Your task to perform on an android device: Go to ESPN.com Image 0: 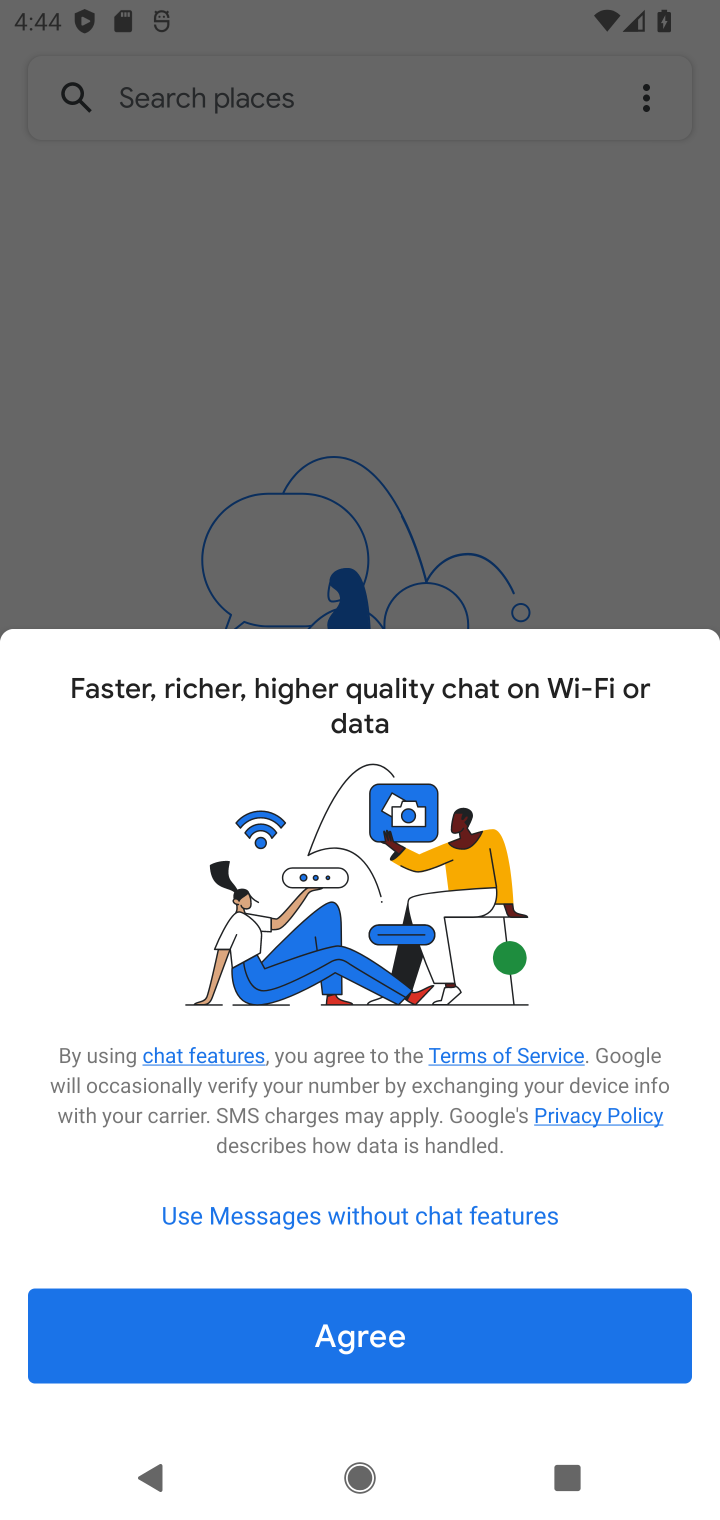
Step 0: press home button
Your task to perform on an android device: Go to ESPN.com Image 1: 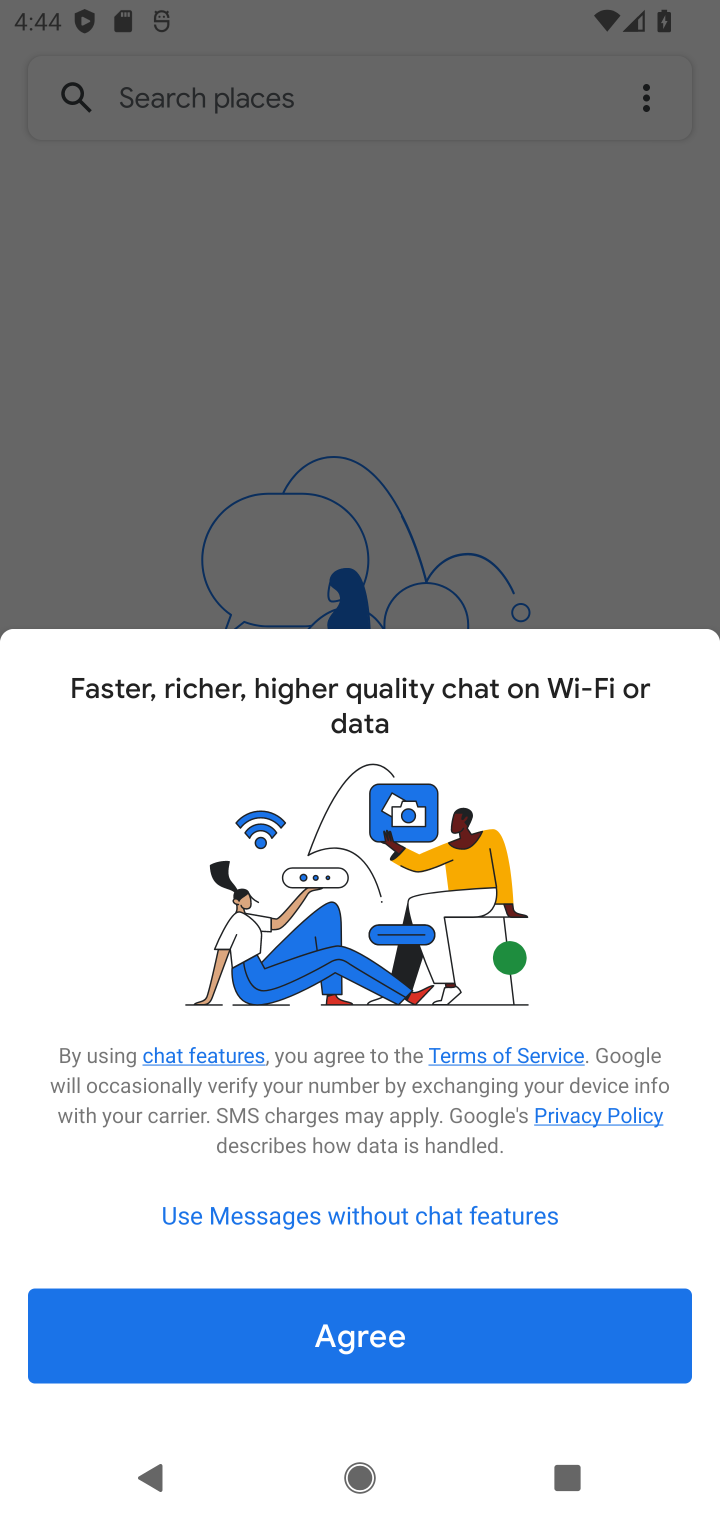
Step 1: press home button
Your task to perform on an android device: Go to ESPN.com Image 2: 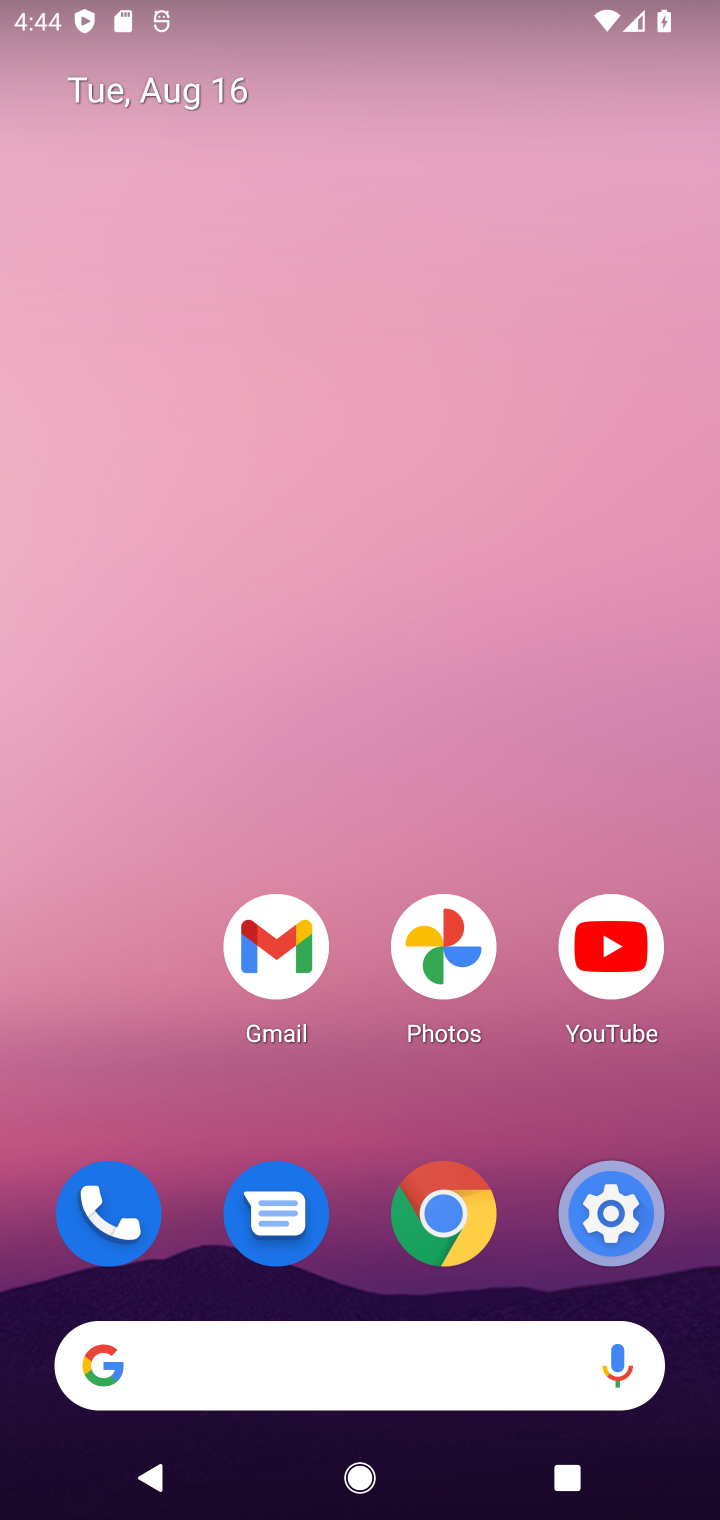
Step 2: drag from (379, 904) to (42, 7)
Your task to perform on an android device: Go to ESPN.com Image 3: 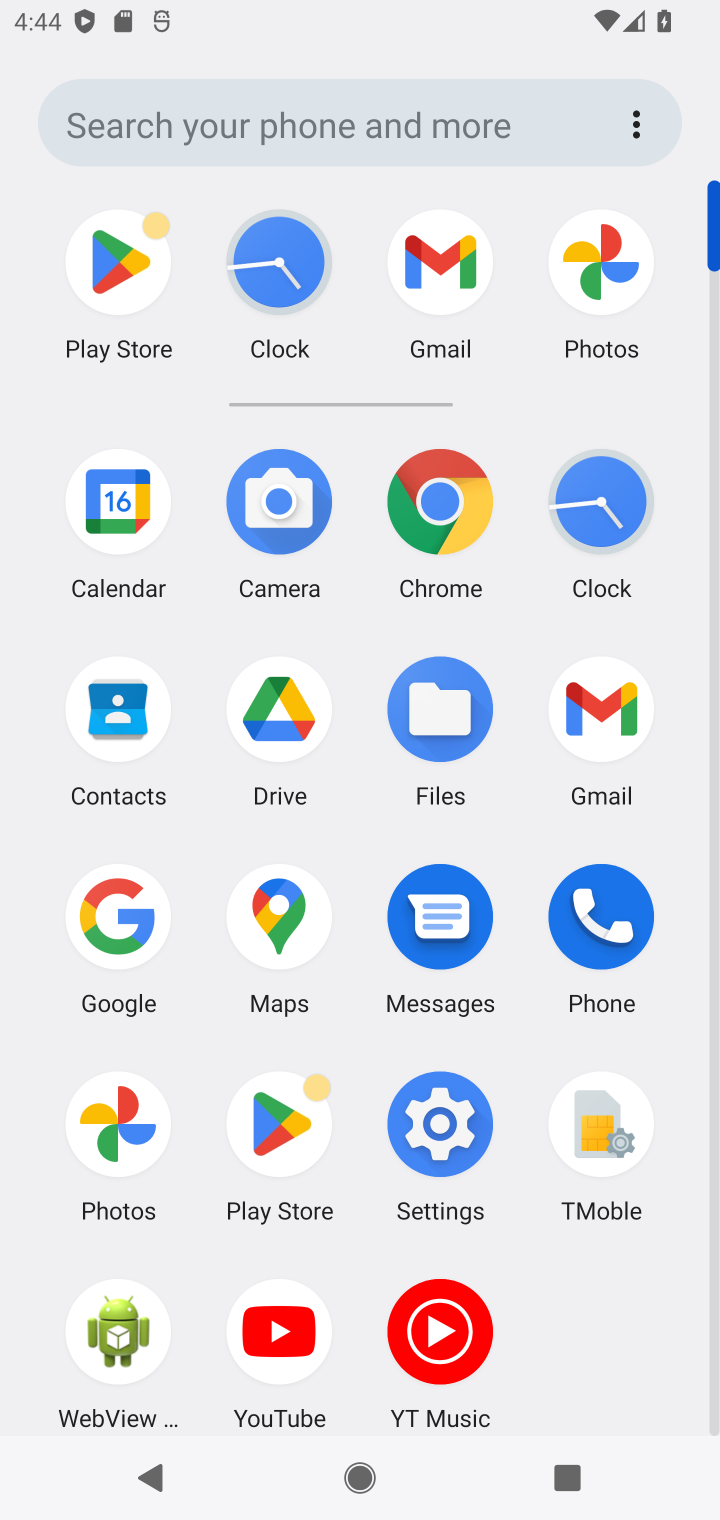
Step 3: click (437, 494)
Your task to perform on an android device: Go to ESPN.com Image 4: 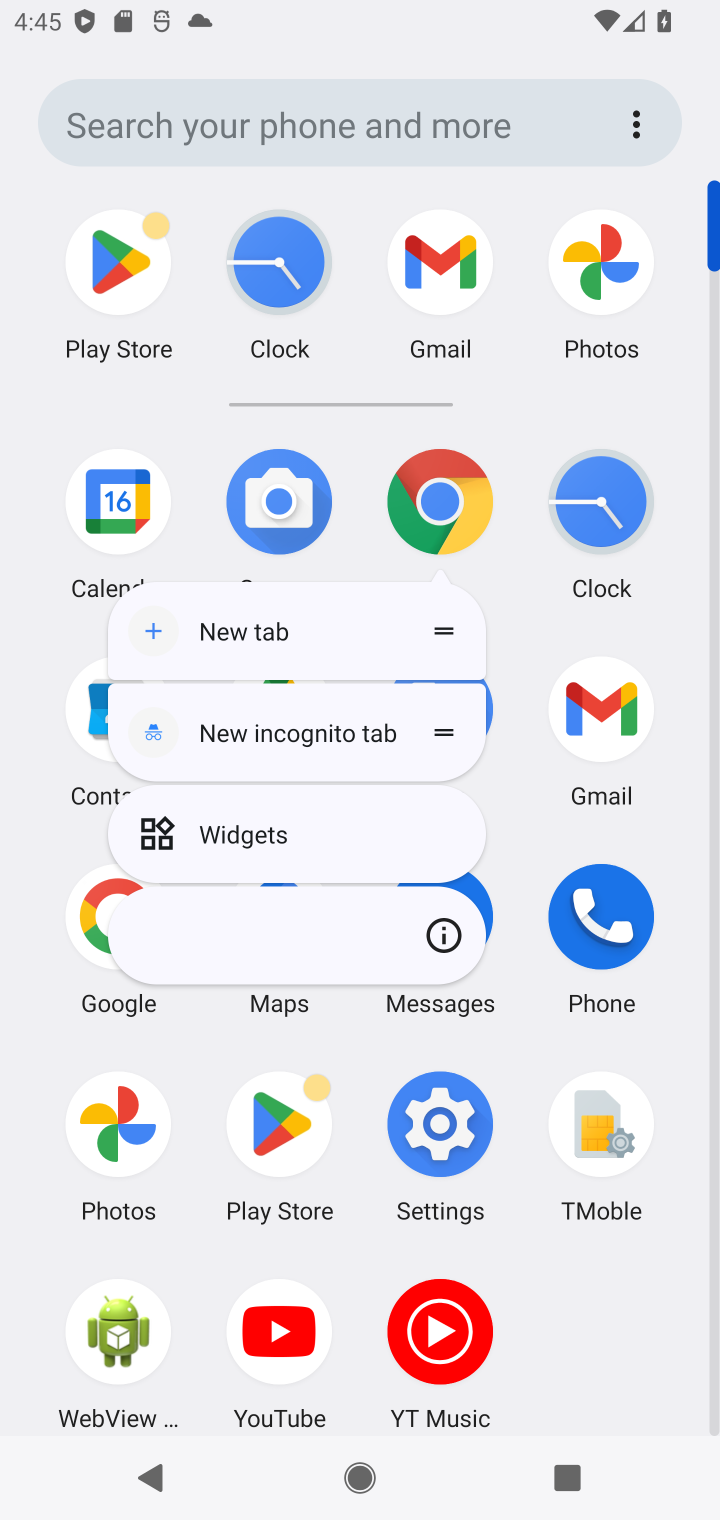
Step 4: click (436, 506)
Your task to perform on an android device: Go to ESPN.com Image 5: 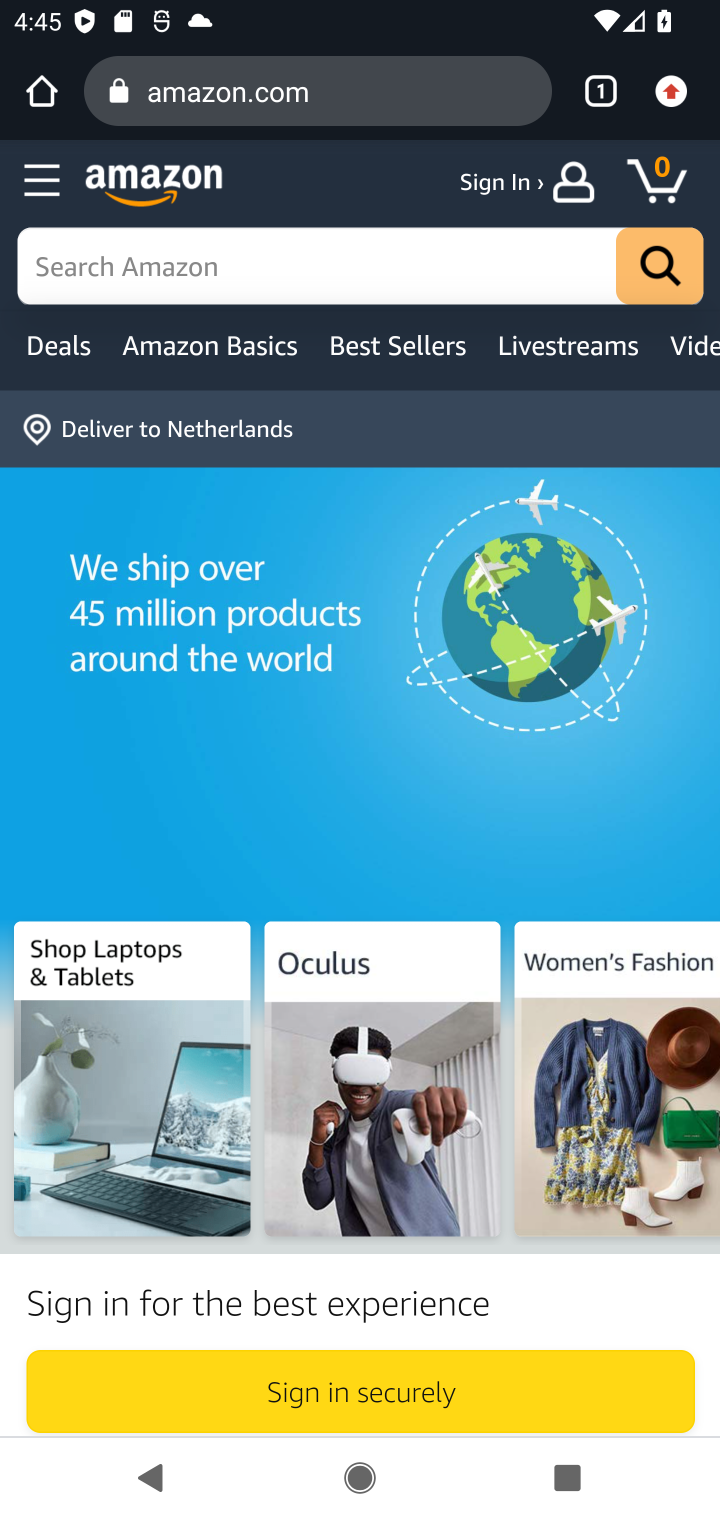
Step 5: click (378, 93)
Your task to perform on an android device: Go to ESPN.com Image 6: 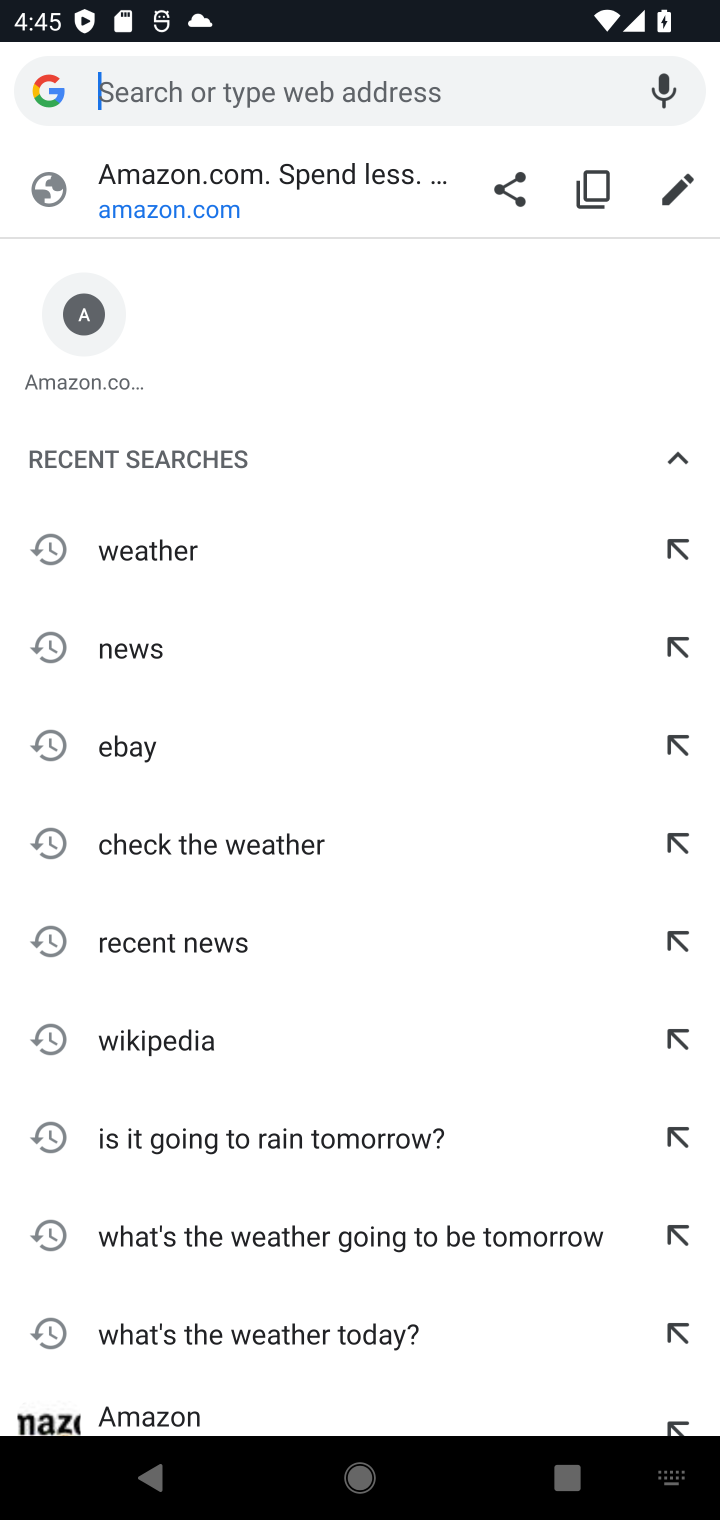
Step 6: type "espn.com"
Your task to perform on an android device: Go to ESPN.com Image 7: 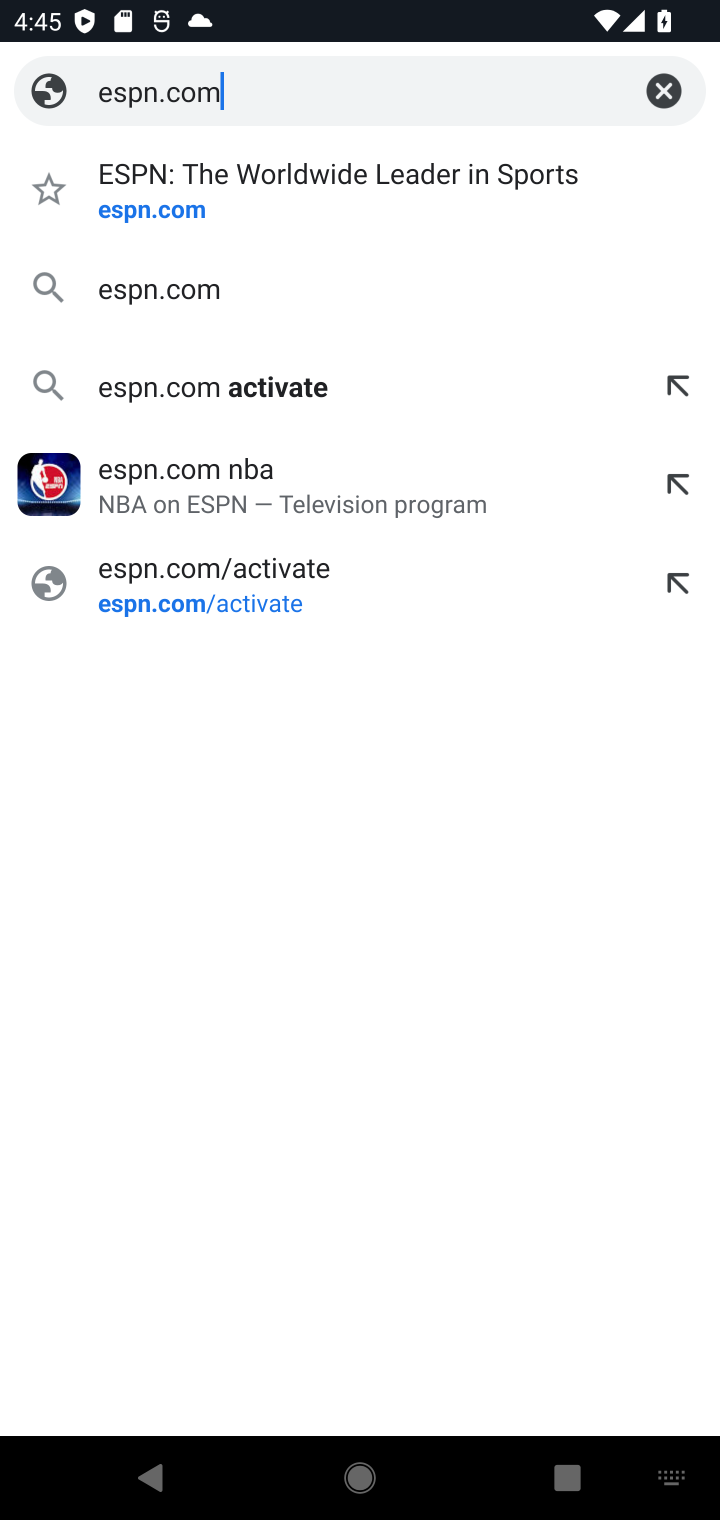
Step 7: click (179, 206)
Your task to perform on an android device: Go to ESPN.com Image 8: 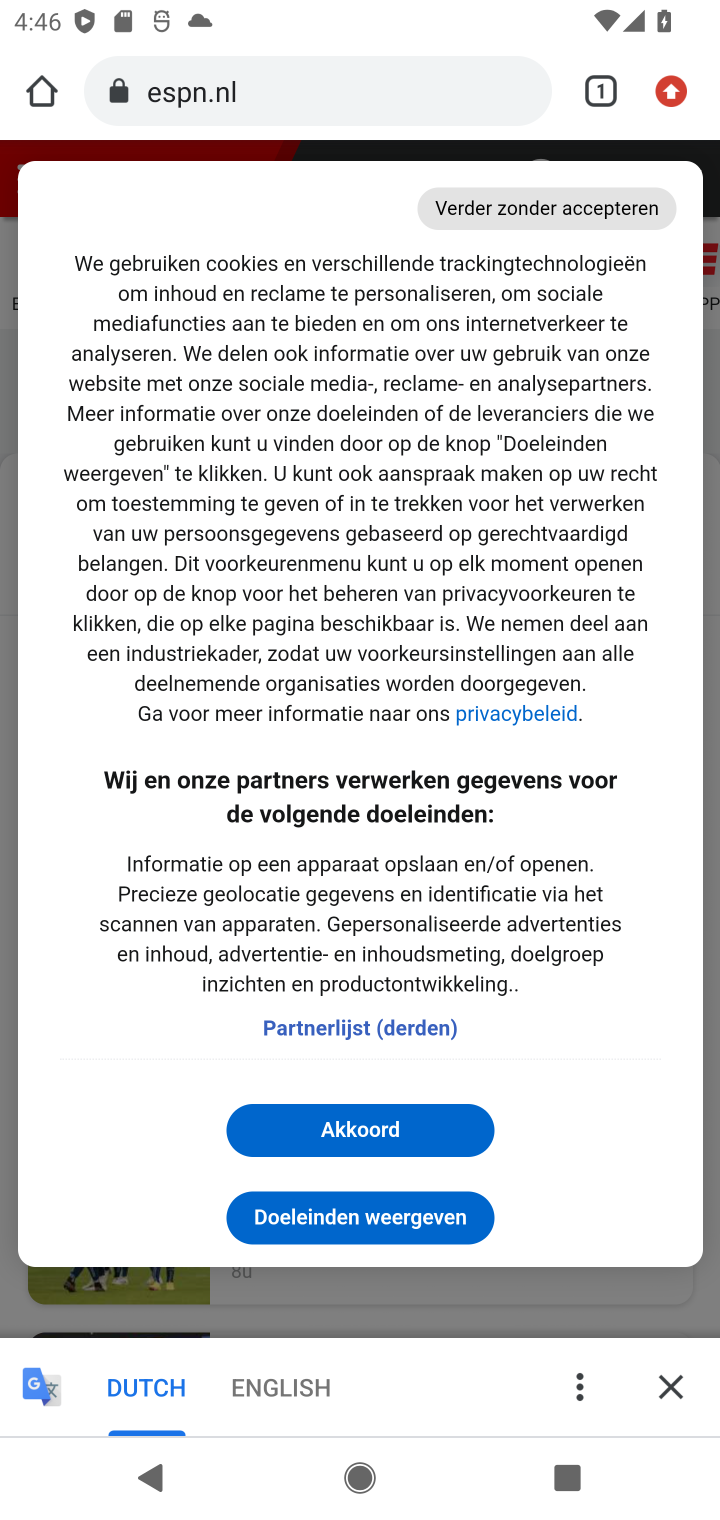
Step 8: task complete